Your task to perform on an android device: change keyboard looks Image 0: 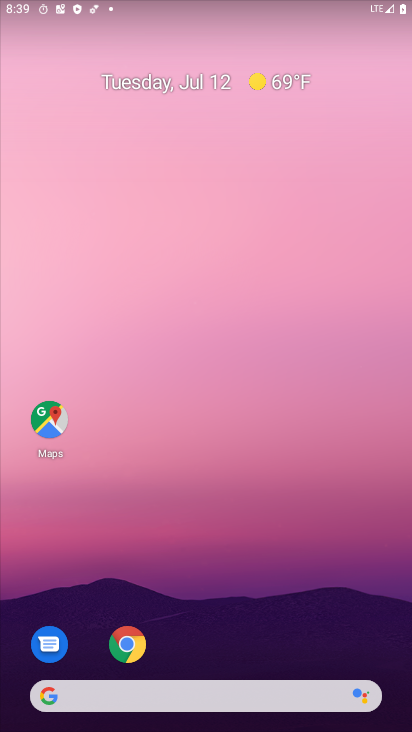
Step 0: press home button
Your task to perform on an android device: change keyboard looks Image 1: 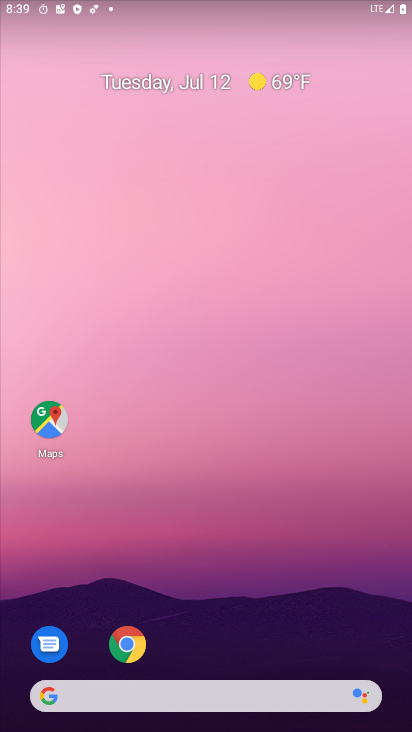
Step 1: drag from (210, 662) to (218, 87)
Your task to perform on an android device: change keyboard looks Image 2: 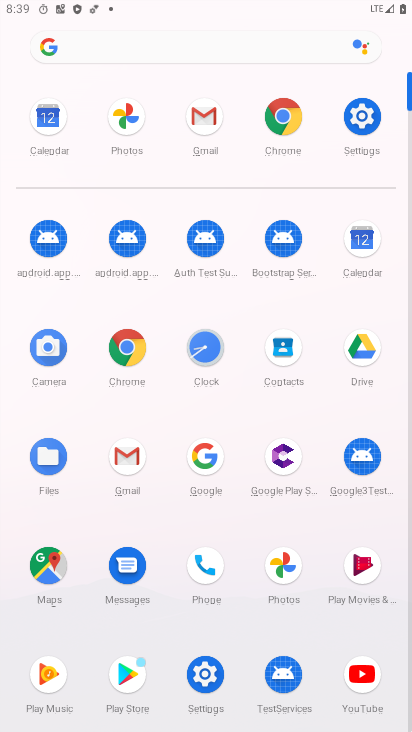
Step 2: click (358, 113)
Your task to perform on an android device: change keyboard looks Image 3: 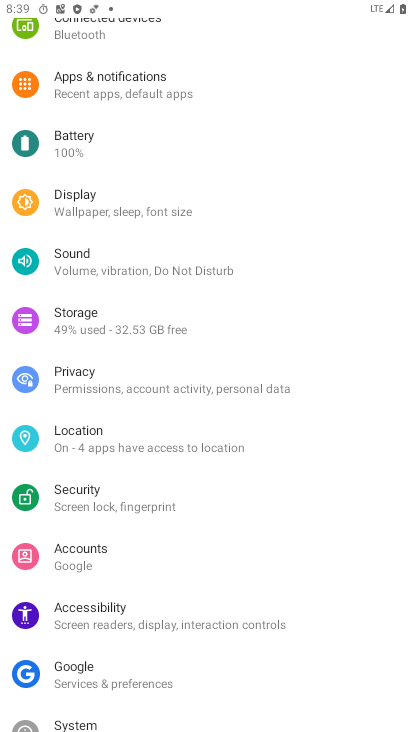
Step 3: drag from (200, 683) to (228, 121)
Your task to perform on an android device: change keyboard looks Image 4: 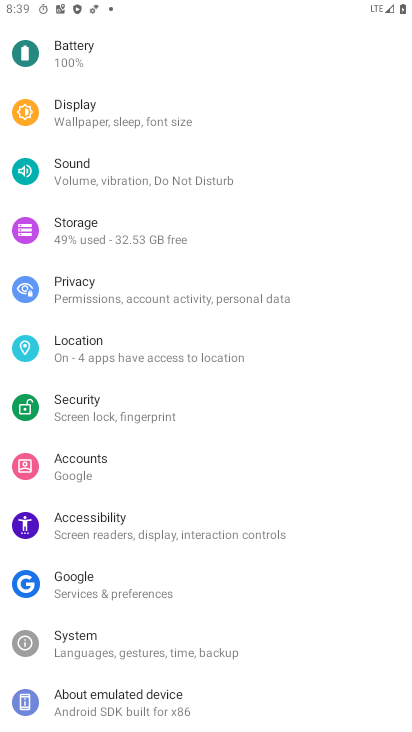
Step 4: click (140, 632)
Your task to perform on an android device: change keyboard looks Image 5: 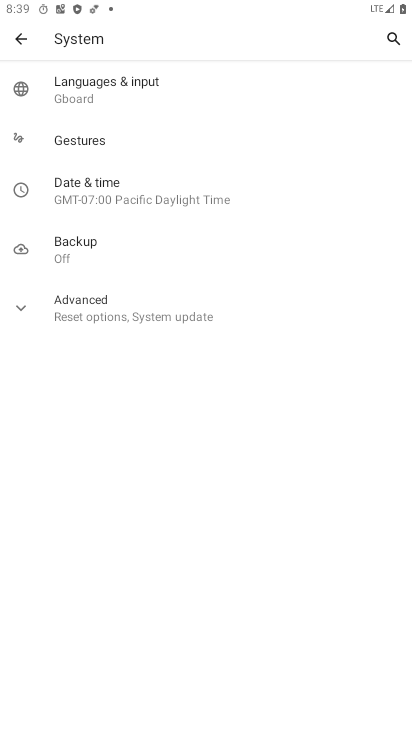
Step 5: click (18, 310)
Your task to perform on an android device: change keyboard looks Image 6: 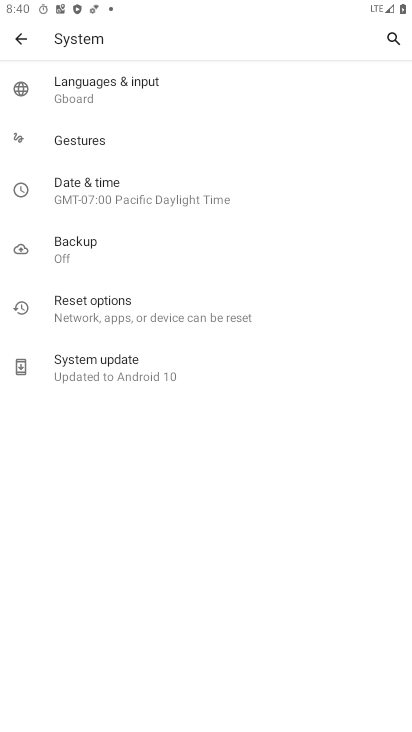
Step 6: click (117, 83)
Your task to perform on an android device: change keyboard looks Image 7: 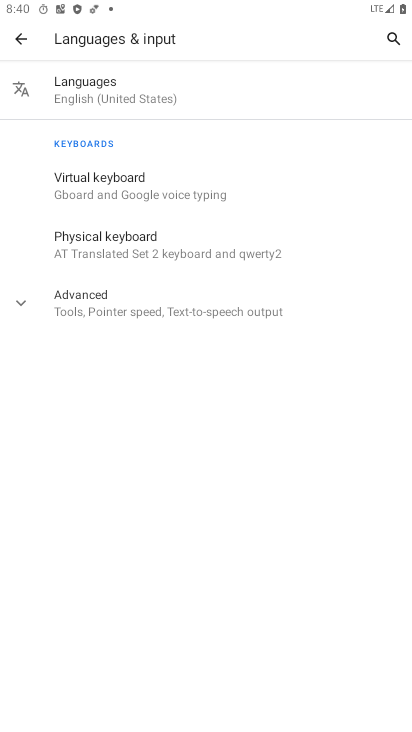
Step 7: click (21, 296)
Your task to perform on an android device: change keyboard looks Image 8: 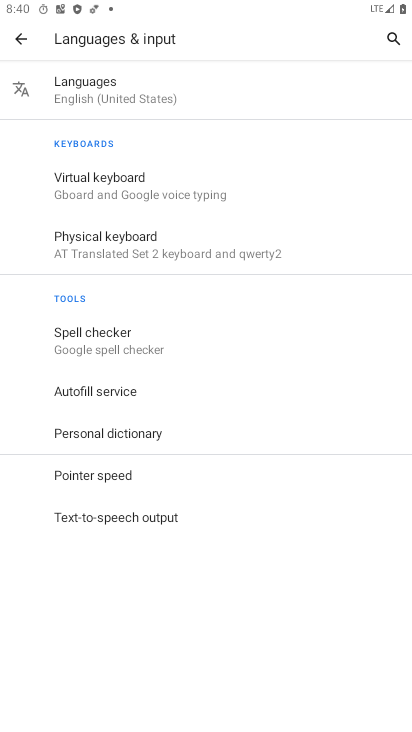
Step 8: click (132, 183)
Your task to perform on an android device: change keyboard looks Image 9: 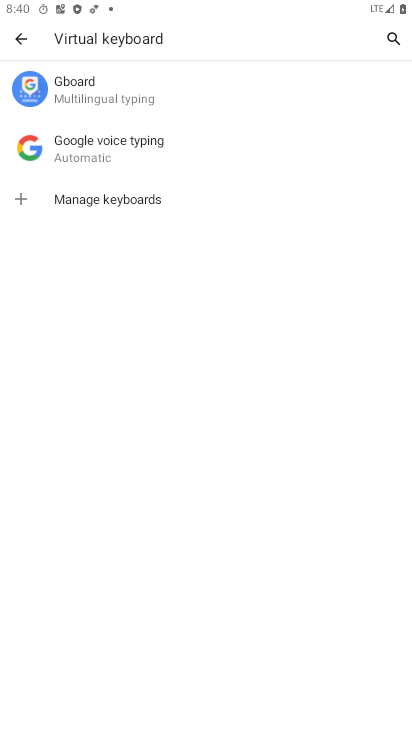
Step 9: click (125, 81)
Your task to perform on an android device: change keyboard looks Image 10: 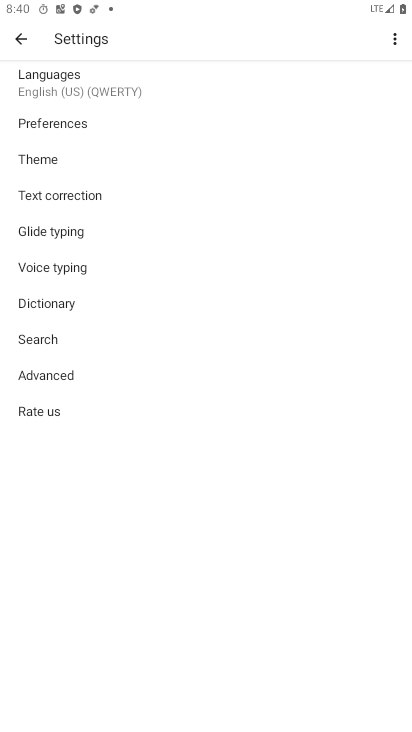
Step 10: click (66, 155)
Your task to perform on an android device: change keyboard looks Image 11: 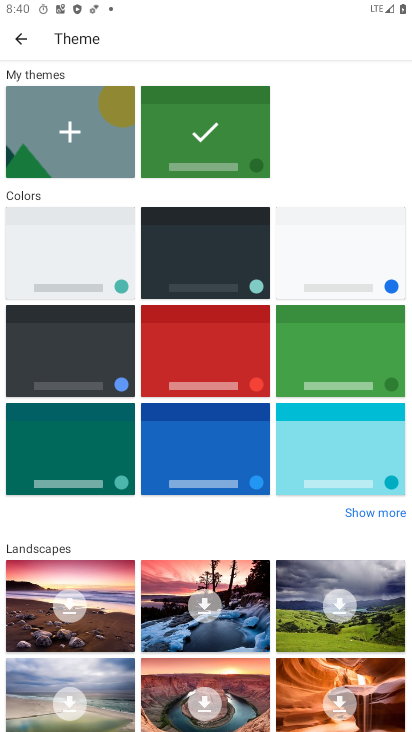
Step 11: click (353, 350)
Your task to perform on an android device: change keyboard looks Image 12: 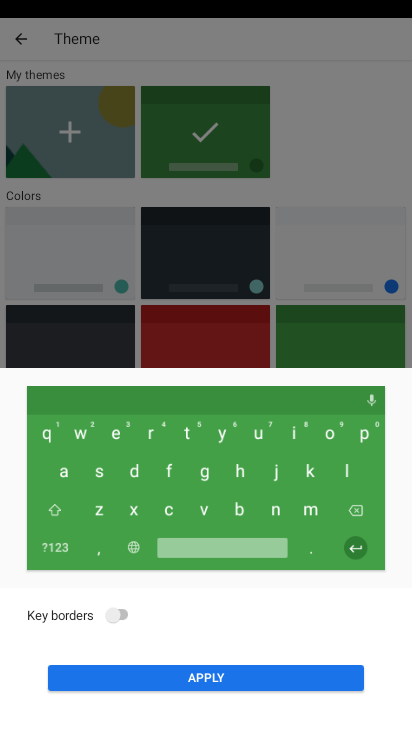
Step 12: click (211, 675)
Your task to perform on an android device: change keyboard looks Image 13: 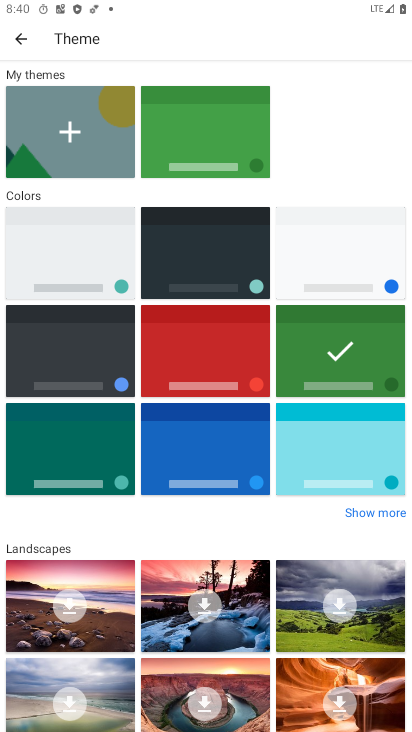
Step 13: task complete